Your task to perform on an android device: change the upload size in google photos Image 0: 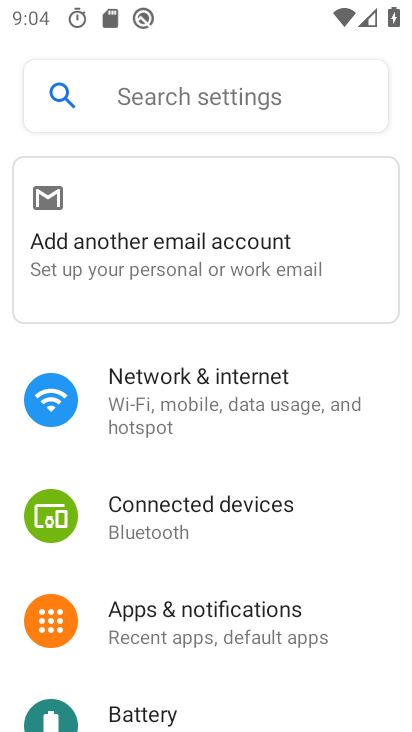
Step 0: press home button
Your task to perform on an android device: change the upload size in google photos Image 1: 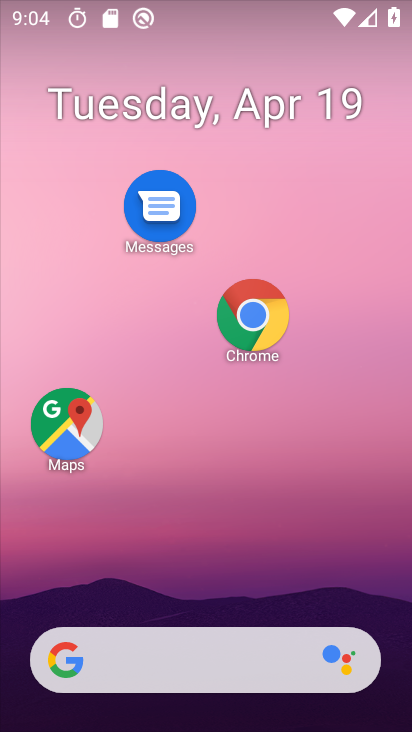
Step 1: drag from (192, 223) to (69, 245)
Your task to perform on an android device: change the upload size in google photos Image 2: 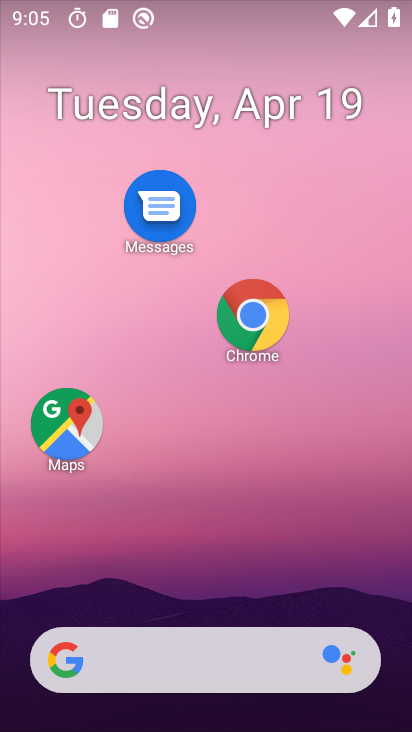
Step 2: drag from (199, 636) to (149, 0)
Your task to perform on an android device: change the upload size in google photos Image 3: 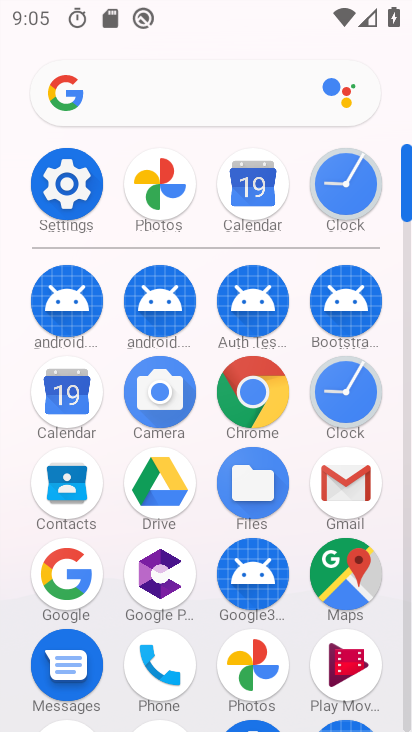
Step 3: click (254, 673)
Your task to perform on an android device: change the upload size in google photos Image 4: 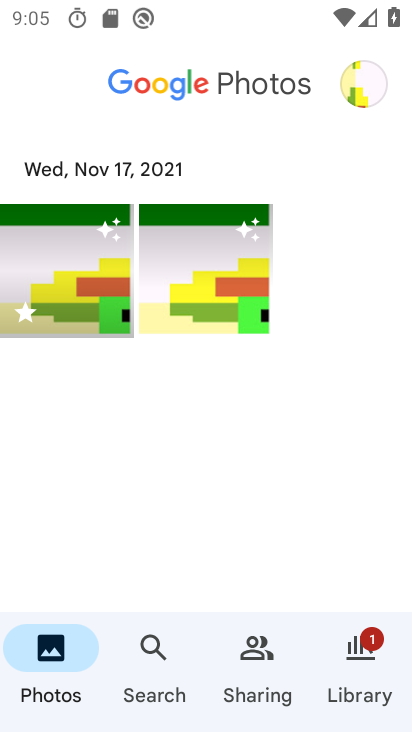
Step 4: click (353, 91)
Your task to perform on an android device: change the upload size in google photos Image 5: 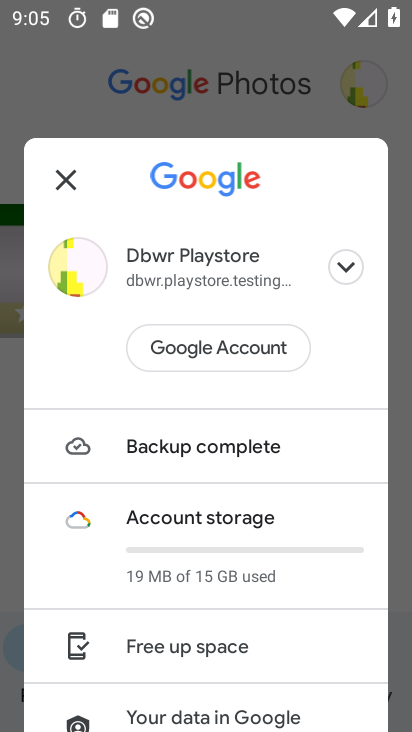
Step 5: drag from (197, 684) to (200, 339)
Your task to perform on an android device: change the upload size in google photos Image 6: 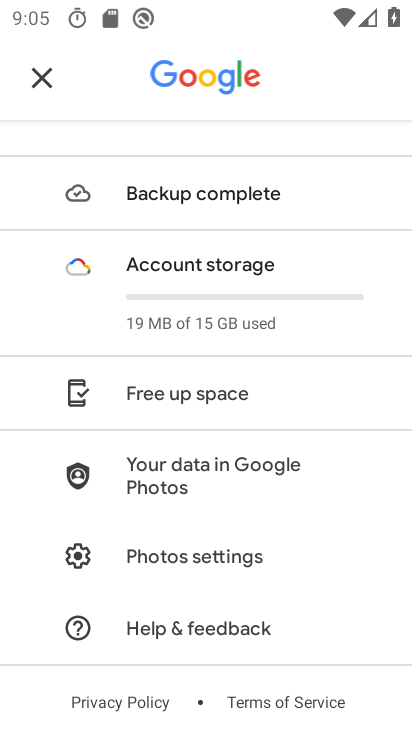
Step 6: click (172, 553)
Your task to perform on an android device: change the upload size in google photos Image 7: 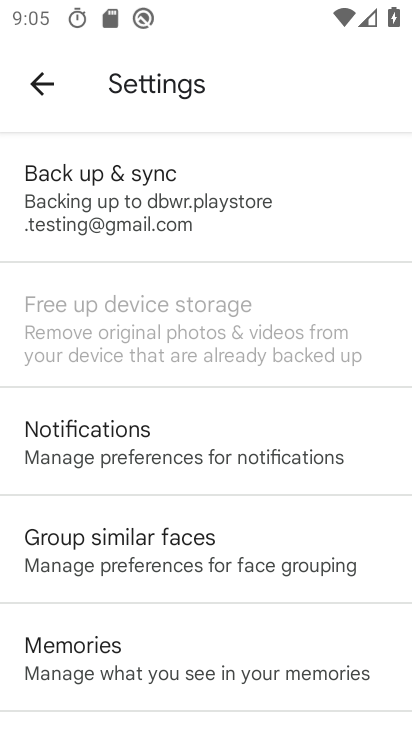
Step 7: click (149, 193)
Your task to perform on an android device: change the upload size in google photos Image 8: 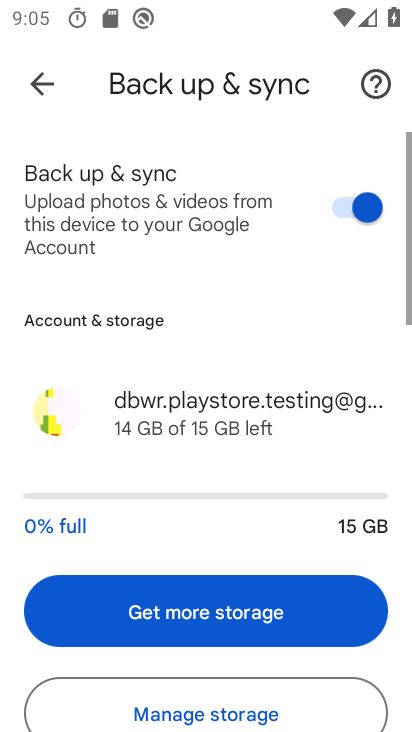
Step 8: drag from (212, 499) to (198, 101)
Your task to perform on an android device: change the upload size in google photos Image 9: 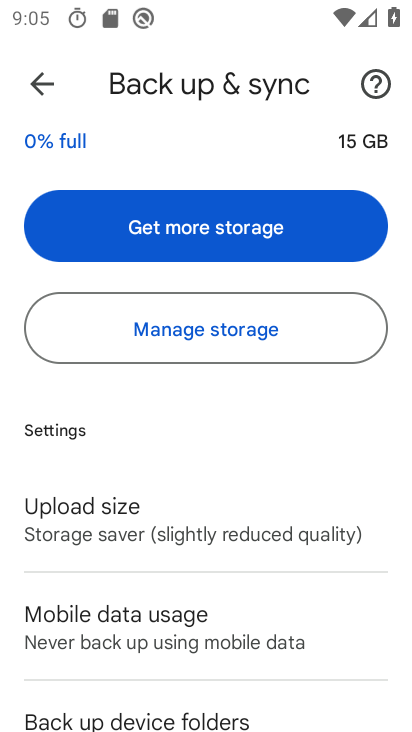
Step 9: click (139, 539)
Your task to perform on an android device: change the upload size in google photos Image 10: 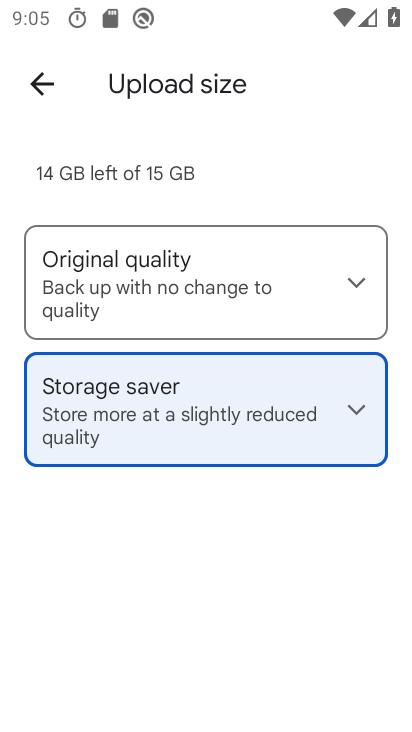
Step 10: click (350, 280)
Your task to perform on an android device: change the upload size in google photos Image 11: 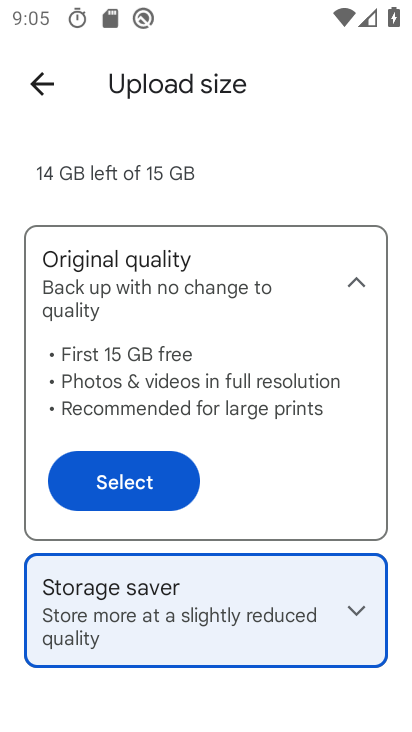
Step 11: click (94, 473)
Your task to perform on an android device: change the upload size in google photos Image 12: 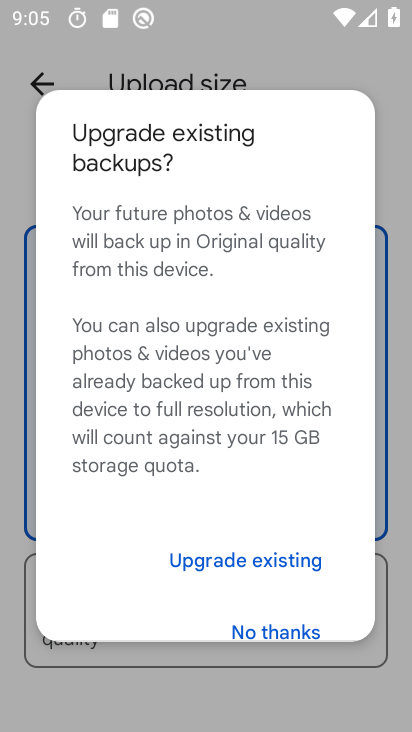
Step 12: click (259, 624)
Your task to perform on an android device: change the upload size in google photos Image 13: 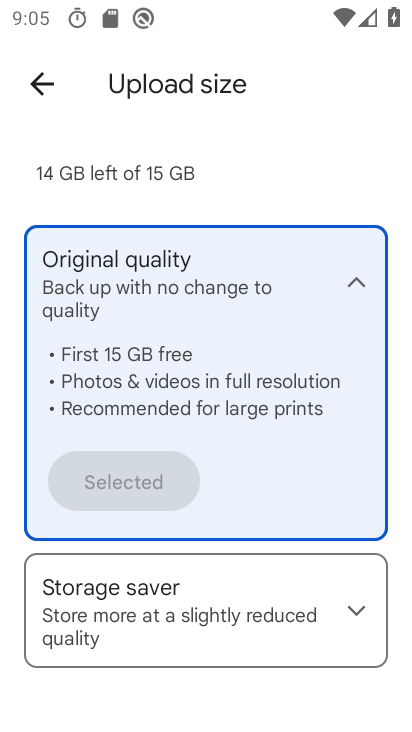
Step 13: task complete